Your task to perform on an android device: check battery use Image 0: 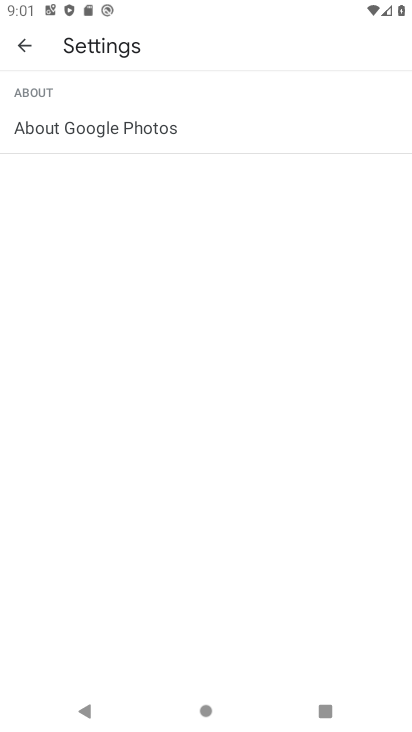
Step 0: press home button
Your task to perform on an android device: check battery use Image 1: 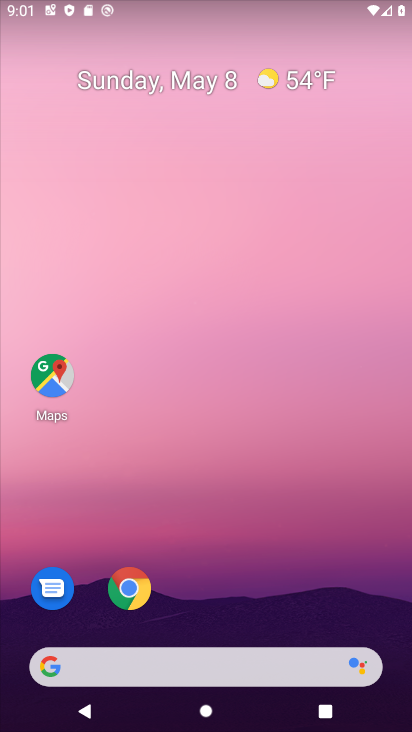
Step 1: drag from (26, 590) to (293, 93)
Your task to perform on an android device: check battery use Image 2: 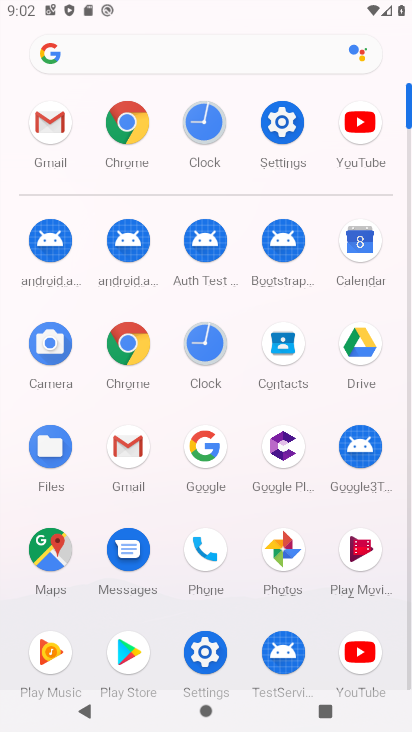
Step 2: click (289, 112)
Your task to perform on an android device: check battery use Image 3: 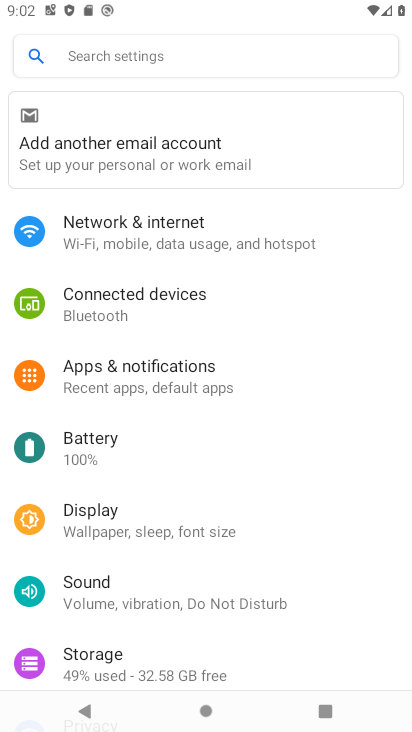
Step 3: click (136, 457)
Your task to perform on an android device: check battery use Image 4: 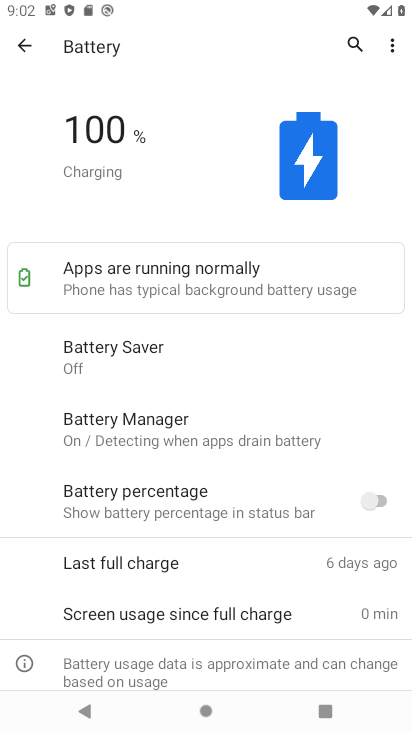
Step 4: click (110, 149)
Your task to perform on an android device: check battery use Image 5: 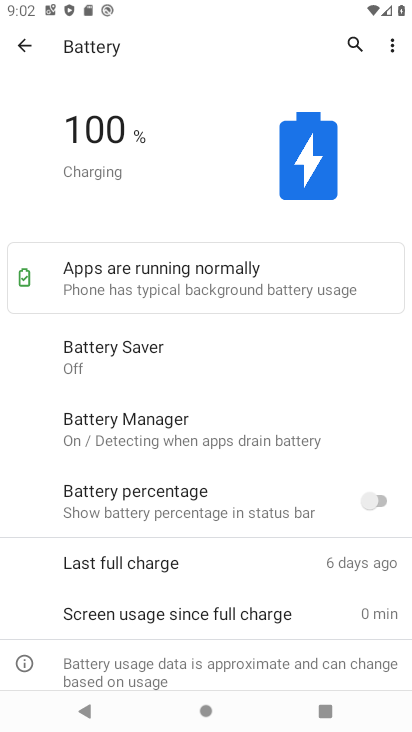
Step 5: task complete